Your task to perform on an android device: Search for "dell xps" on walmart.com, select the first entry, add it to the cart, then select checkout. Image 0: 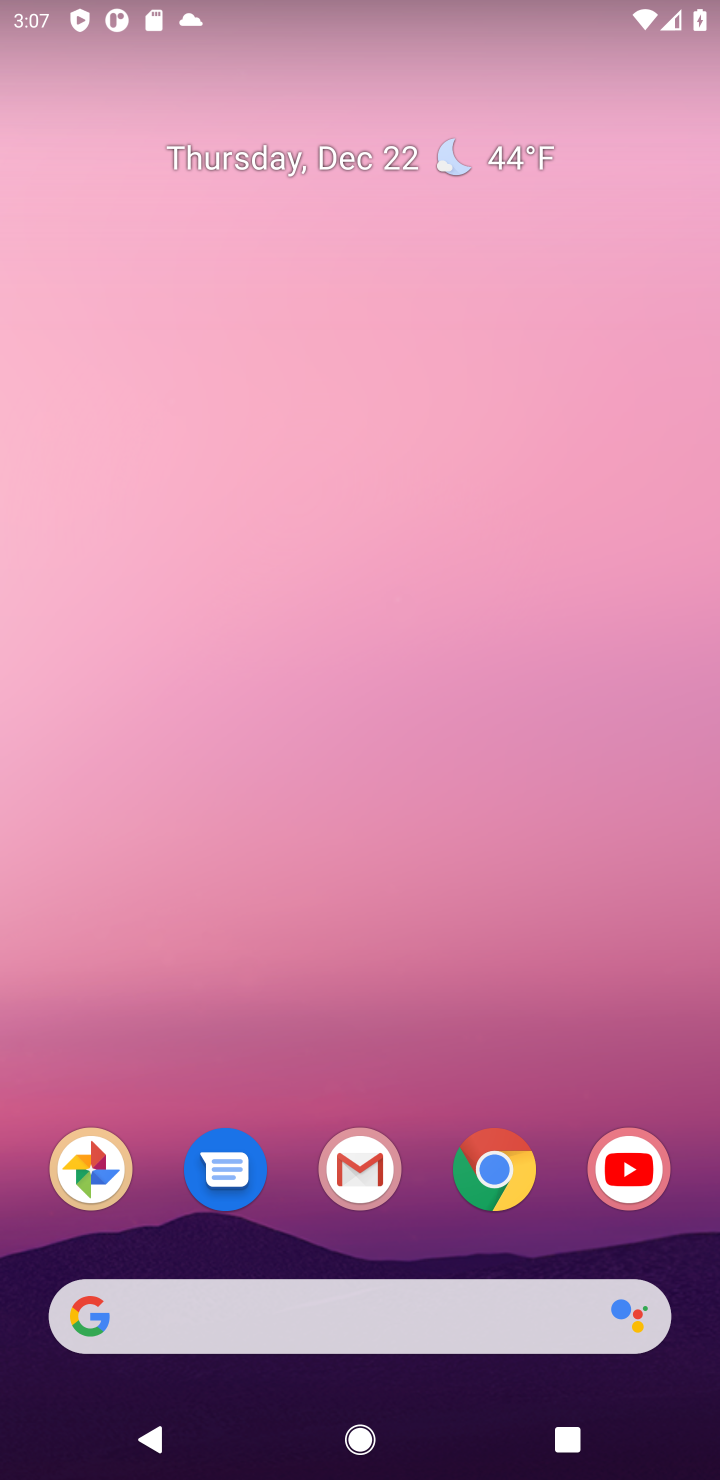
Step 0: click (492, 1178)
Your task to perform on an android device: Search for "dell xps" on walmart.com, select the first entry, add it to the cart, then select checkout. Image 1: 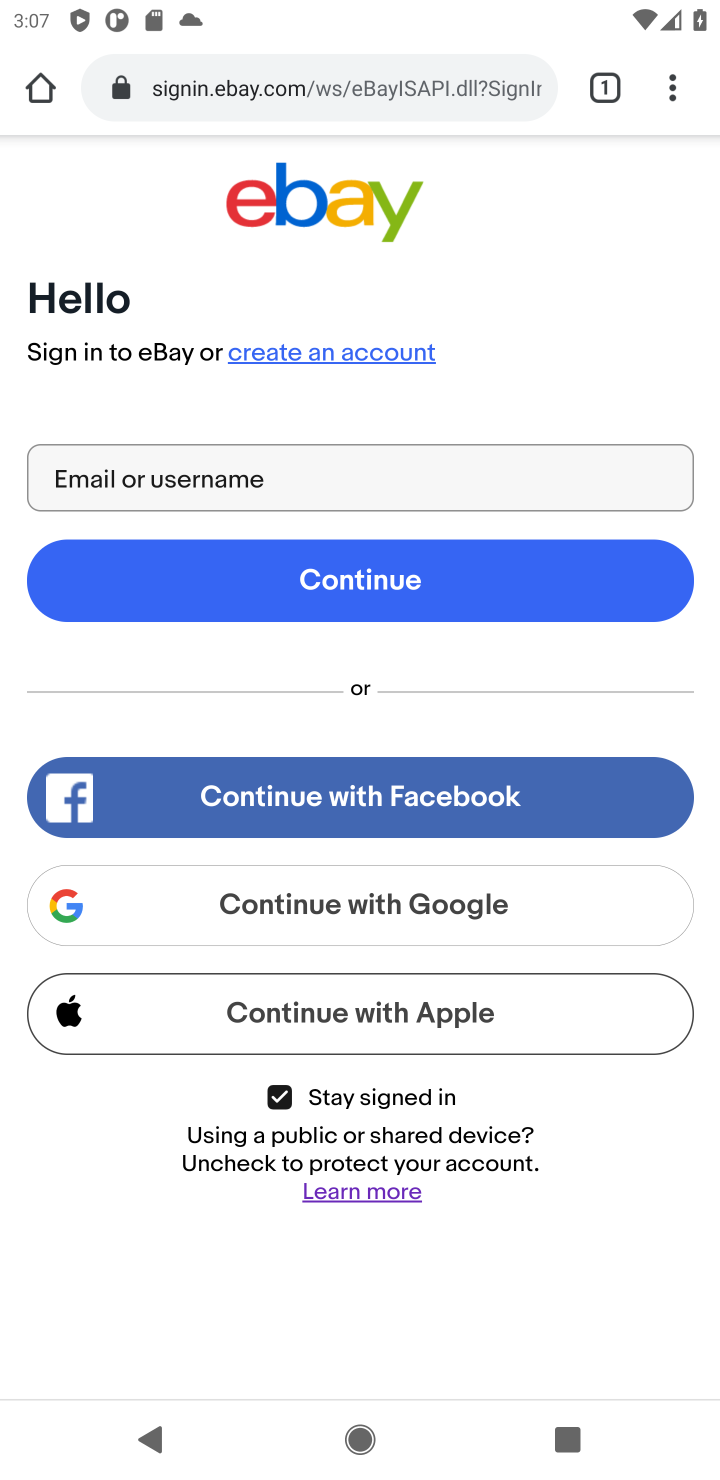
Step 1: click (258, 87)
Your task to perform on an android device: Search for "dell xps" on walmart.com, select the first entry, add it to the cart, then select checkout. Image 2: 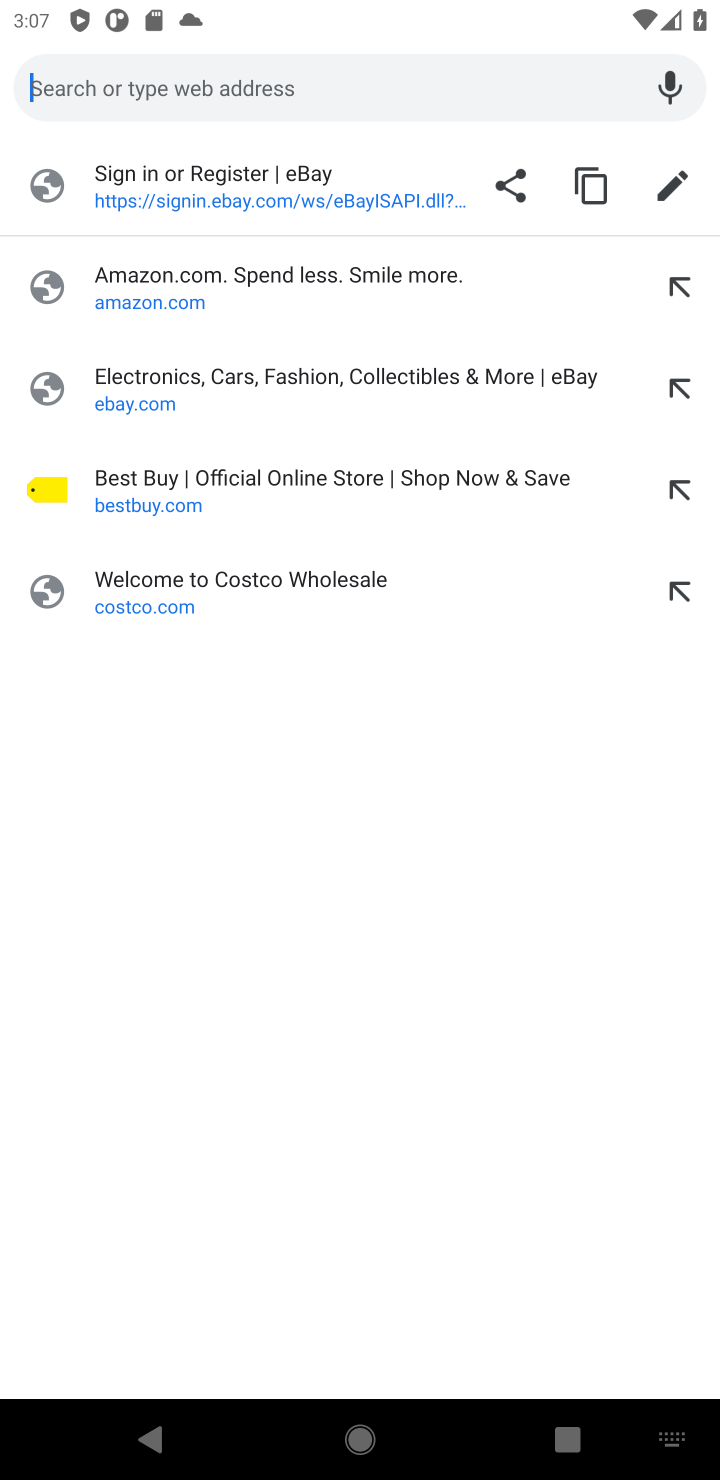
Step 2: type "walmart.com"
Your task to perform on an android device: Search for "dell xps" on walmart.com, select the first entry, add it to the cart, then select checkout. Image 3: 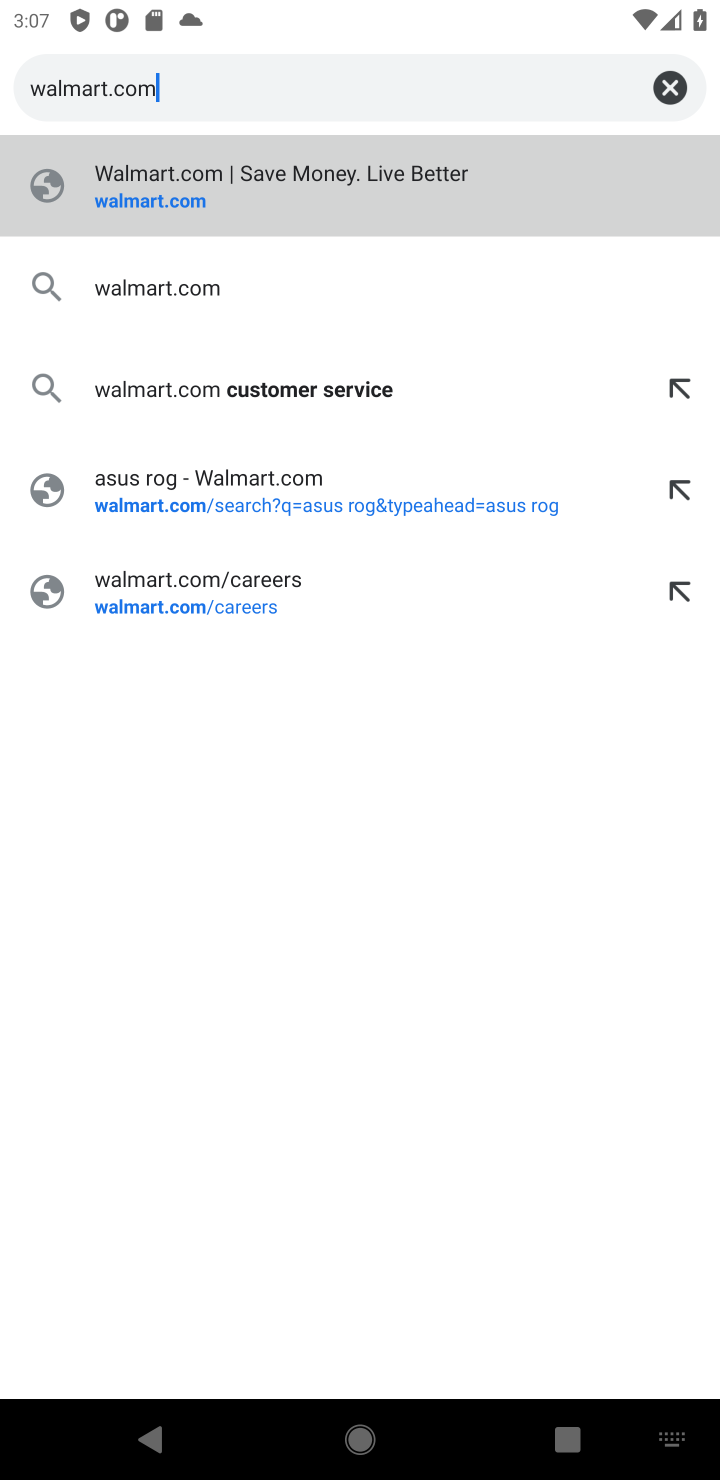
Step 3: click (118, 199)
Your task to perform on an android device: Search for "dell xps" on walmart.com, select the first entry, add it to the cart, then select checkout. Image 4: 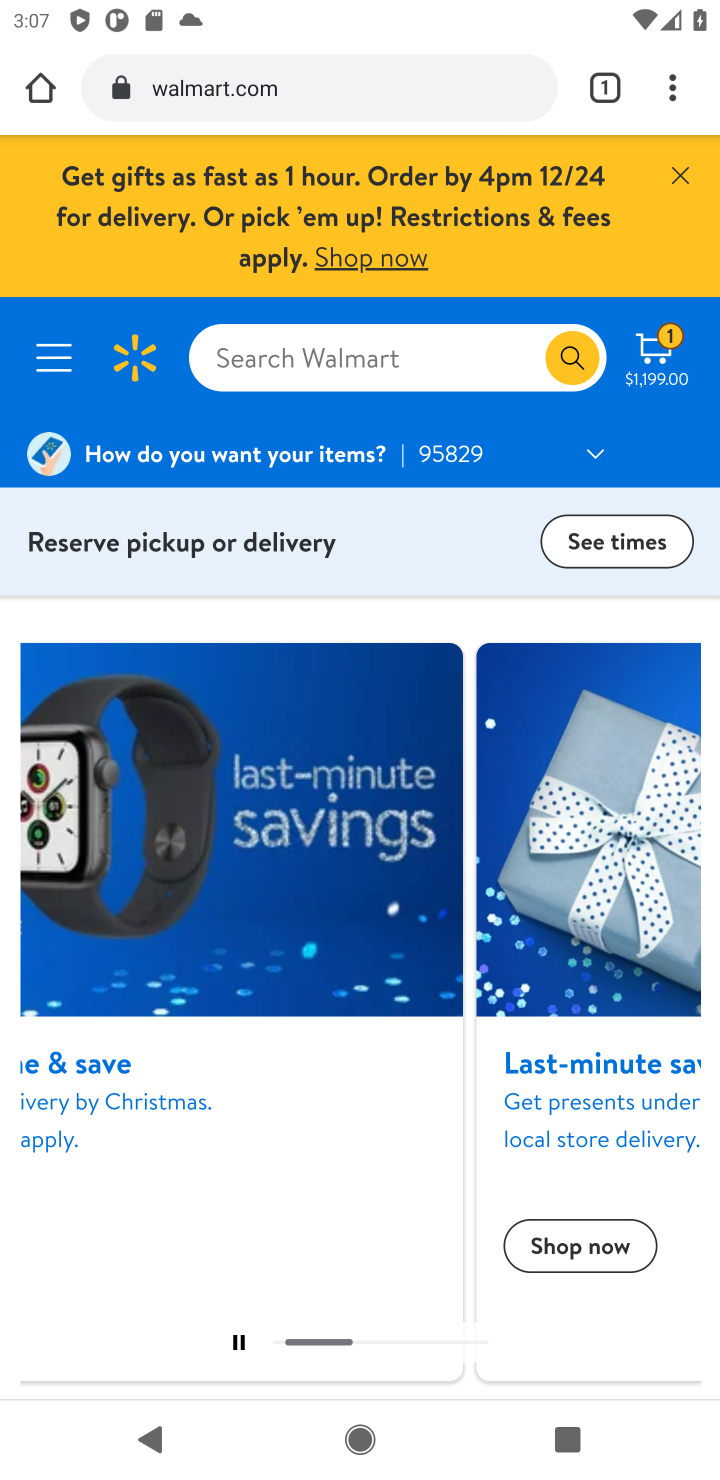
Step 4: click (237, 368)
Your task to perform on an android device: Search for "dell xps" on walmart.com, select the first entry, add it to the cart, then select checkout. Image 5: 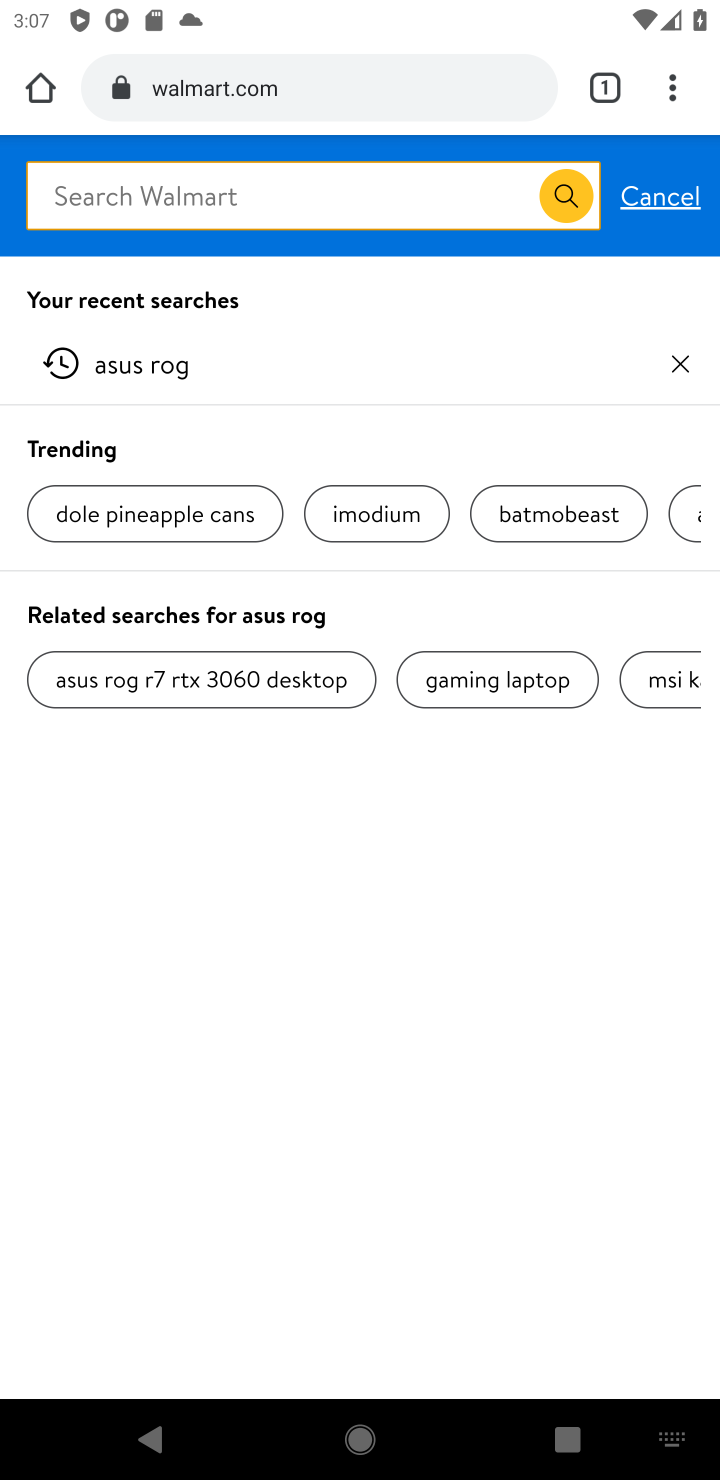
Step 5: type "dell xps"
Your task to perform on an android device: Search for "dell xps" on walmart.com, select the first entry, add it to the cart, then select checkout. Image 6: 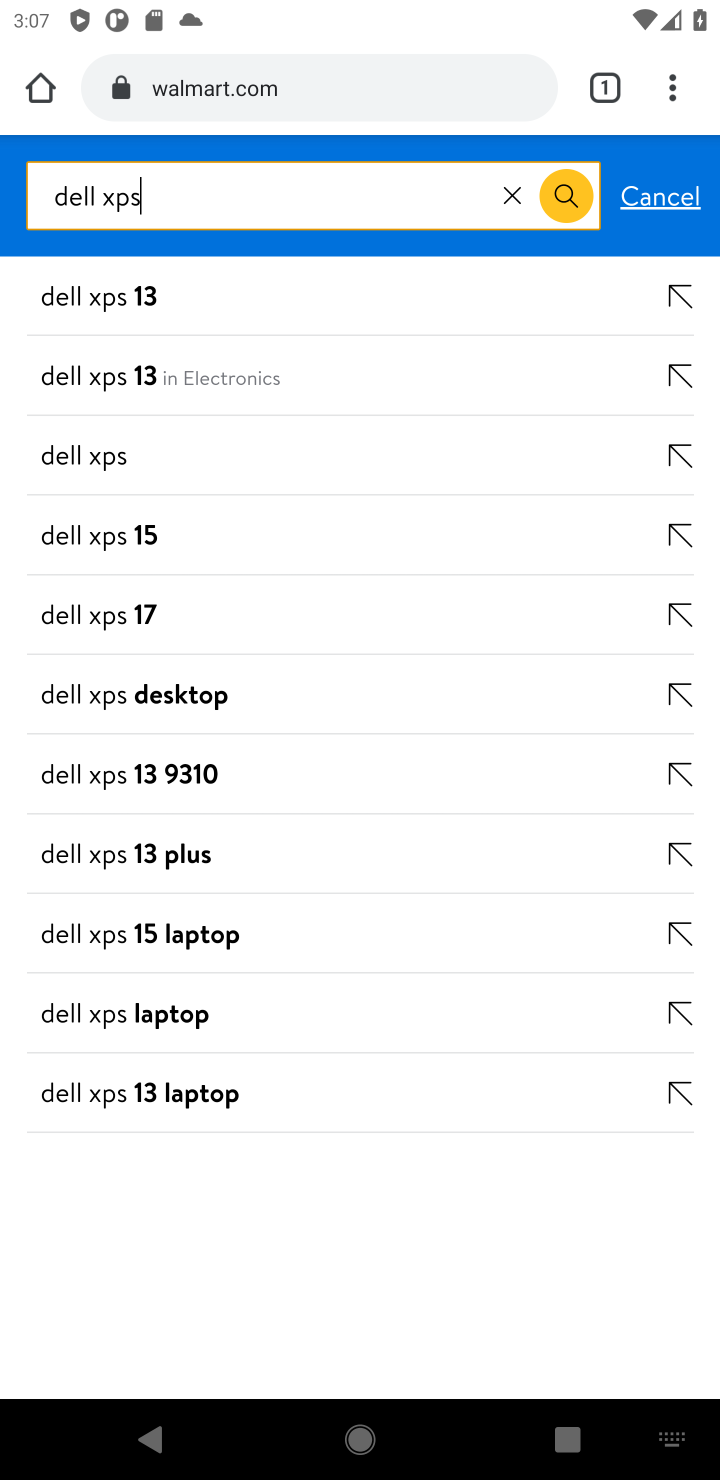
Step 6: click (68, 460)
Your task to perform on an android device: Search for "dell xps" on walmart.com, select the first entry, add it to the cart, then select checkout. Image 7: 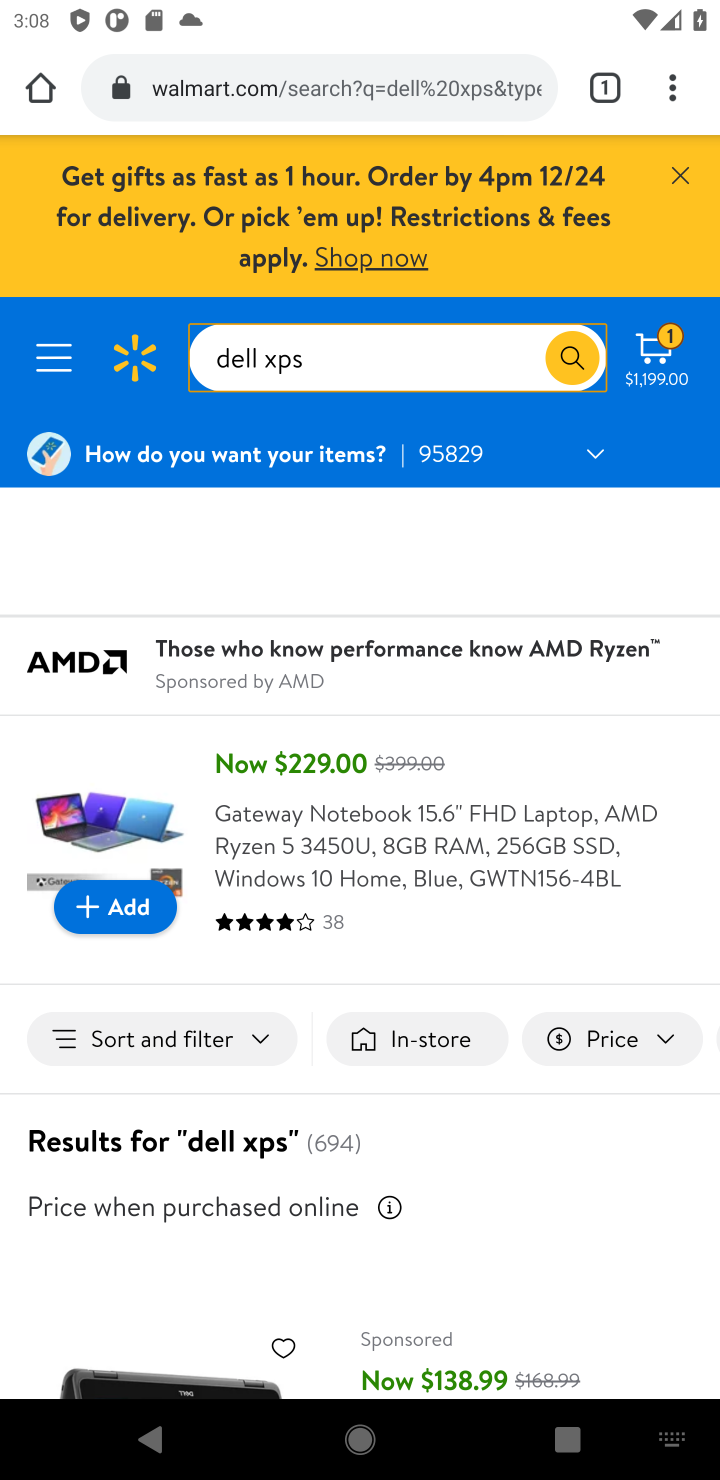
Step 7: task complete